Your task to perform on an android device: Go to eBay Image 0: 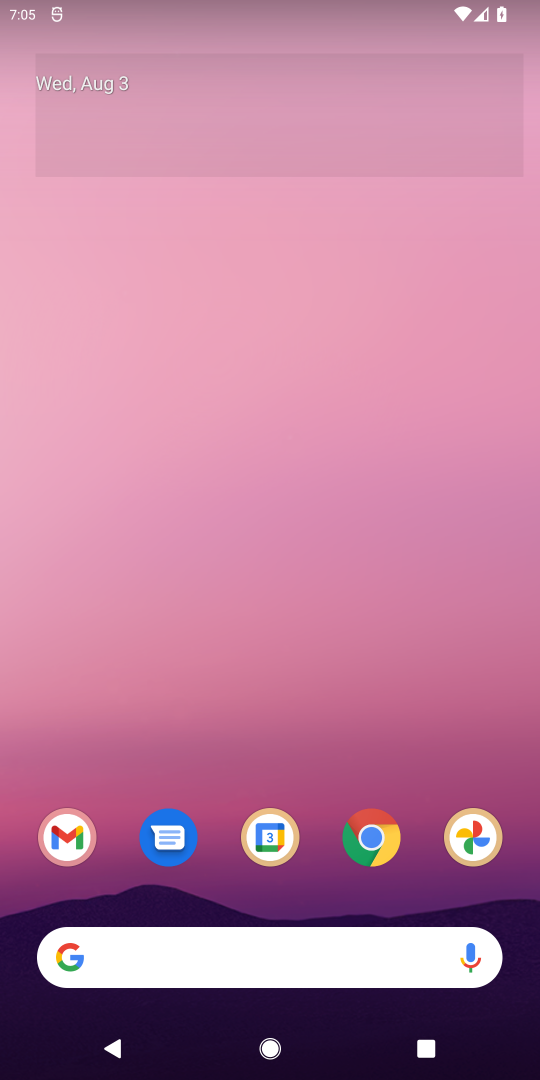
Step 0: press home button
Your task to perform on an android device: Go to eBay Image 1: 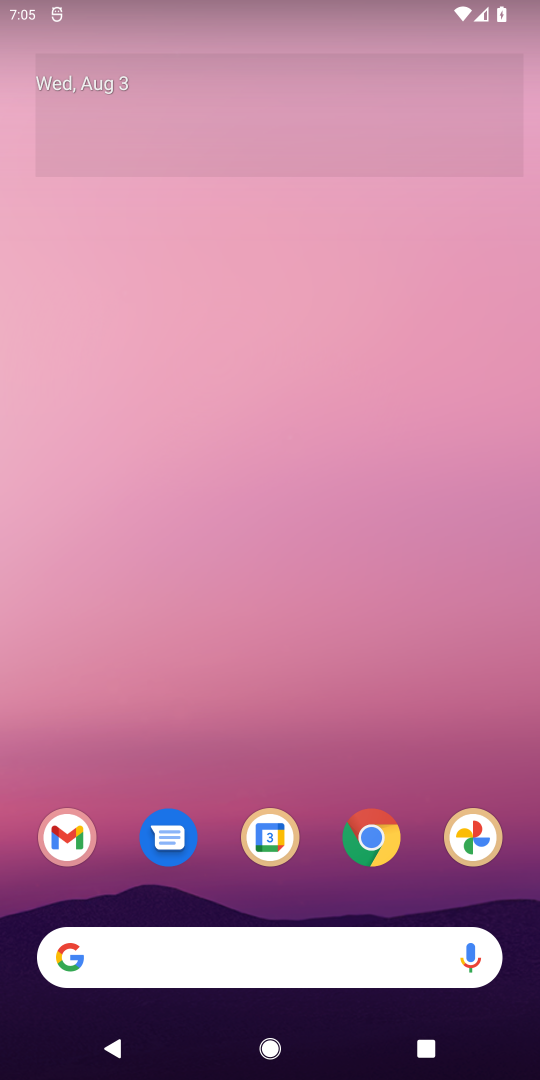
Step 1: click (52, 953)
Your task to perform on an android device: Go to eBay Image 2: 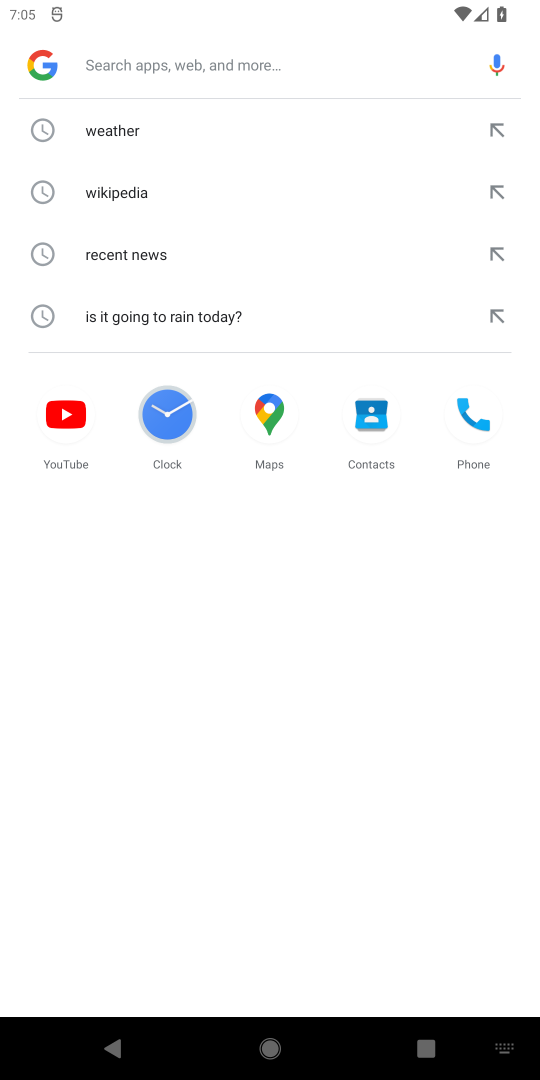
Step 2: type "eBay"
Your task to perform on an android device: Go to eBay Image 3: 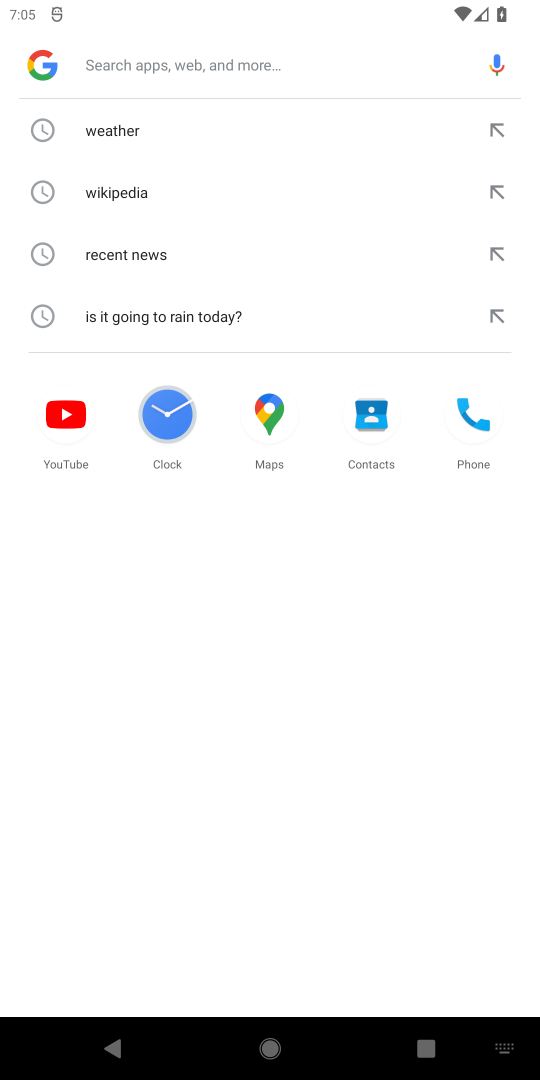
Step 3: click (159, 70)
Your task to perform on an android device: Go to eBay Image 4: 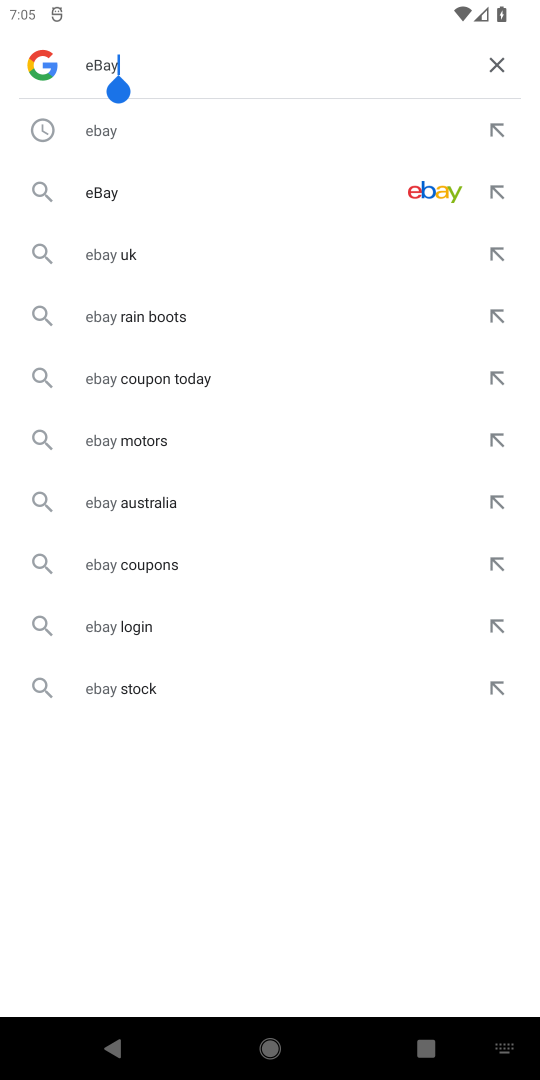
Step 4: press enter
Your task to perform on an android device: Go to eBay Image 5: 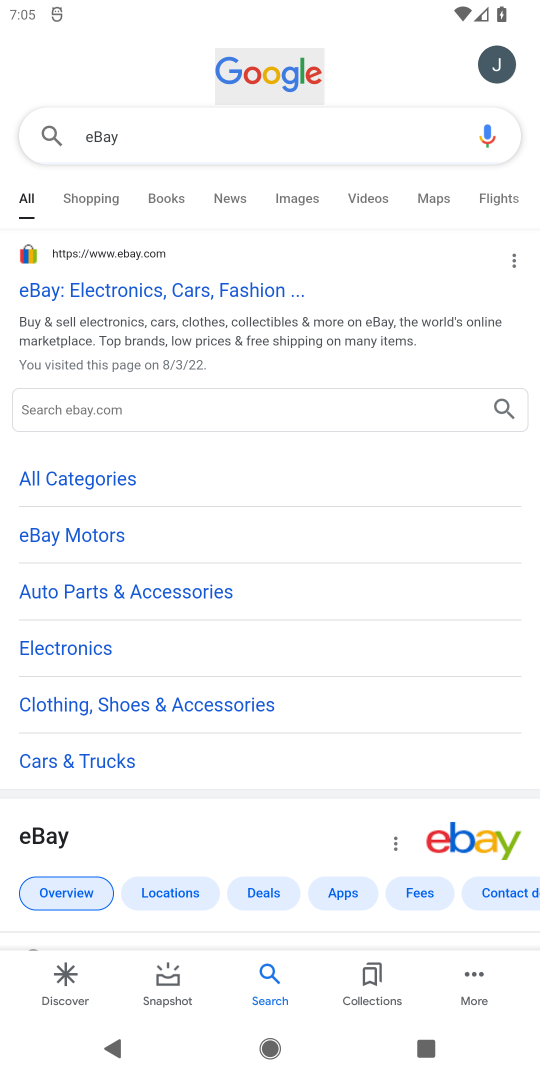
Step 5: click (162, 292)
Your task to perform on an android device: Go to eBay Image 6: 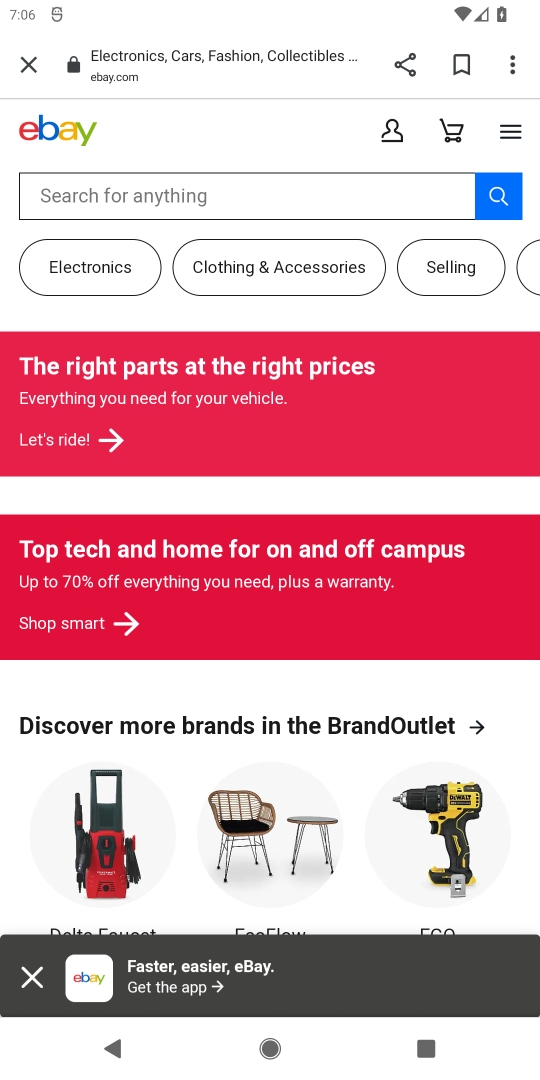
Step 6: task complete